Your task to perform on an android device: delete browsing data in the chrome app Image 0: 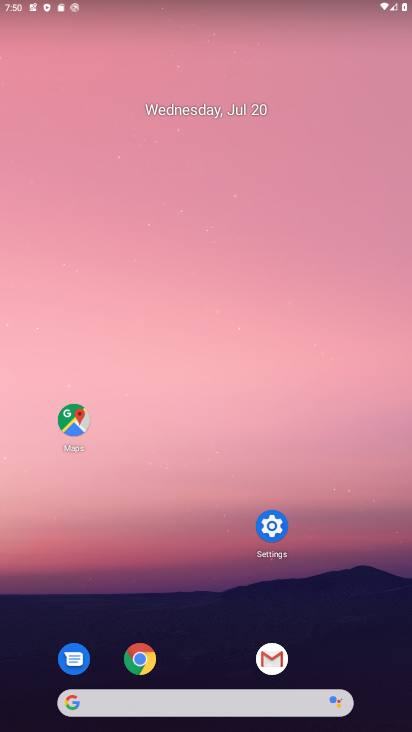
Step 0: click (138, 653)
Your task to perform on an android device: delete browsing data in the chrome app Image 1: 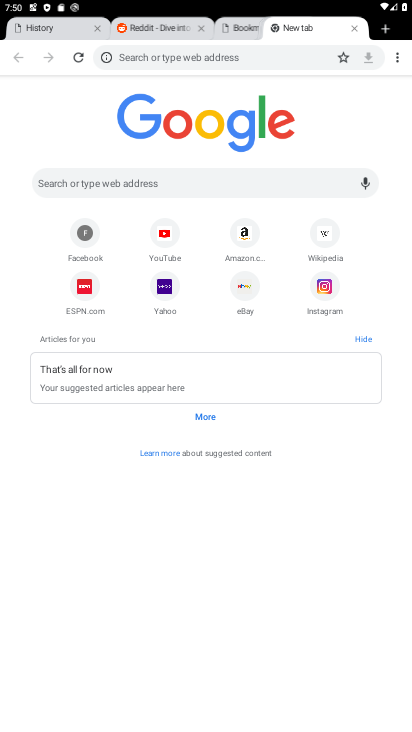
Step 1: click (395, 60)
Your task to perform on an android device: delete browsing data in the chrome app Image 2: 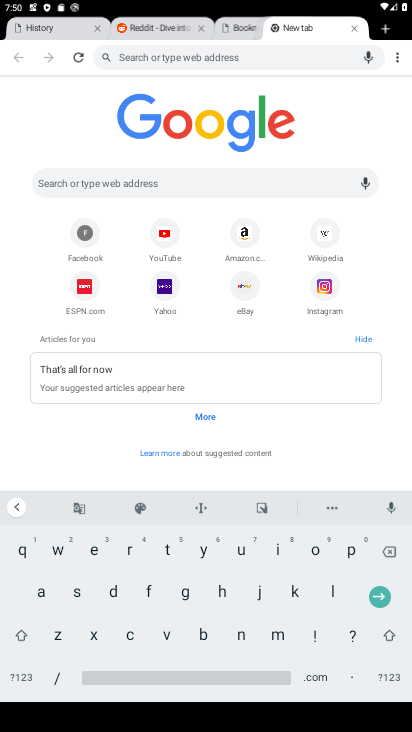
Step 2: click (397, 58)
Your task to perform on an android device: delete browsing data in the chrome app Image 3: 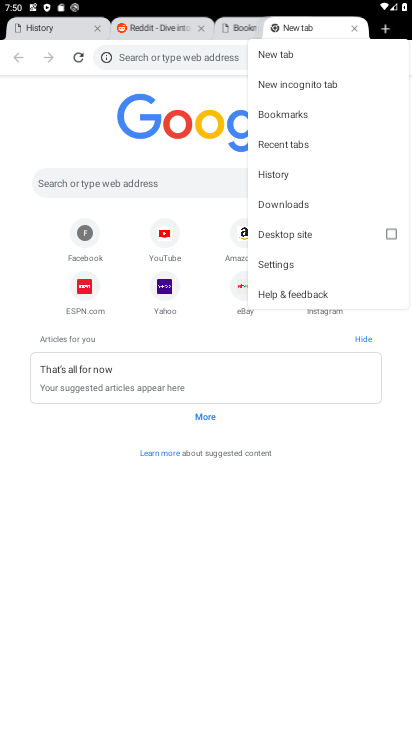
Step 3: click (276, 260)
Your task to perform on an android device: delete browsing data in the chrome app Image 4: 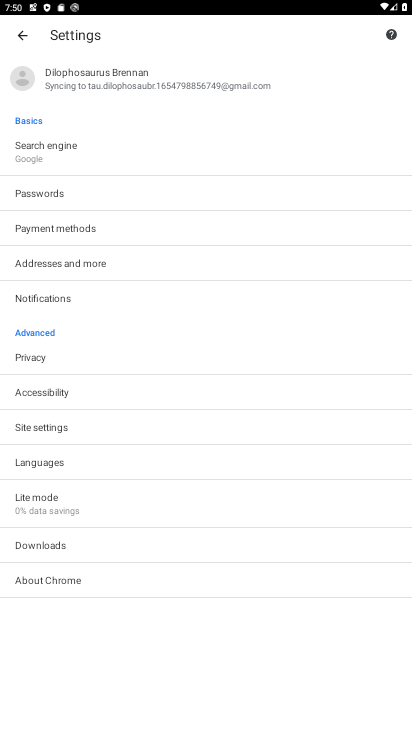
Step 4: click (33, 362)
Your task to perform on an android device: delete browsing data in the chrome app Image 5: 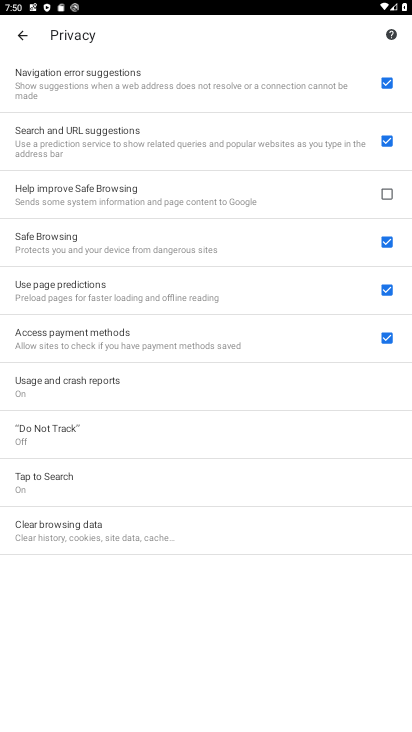
Step 5: click (93, 530)
Your task to perform on an android device: delete browsing data in the chrome app Image 6: 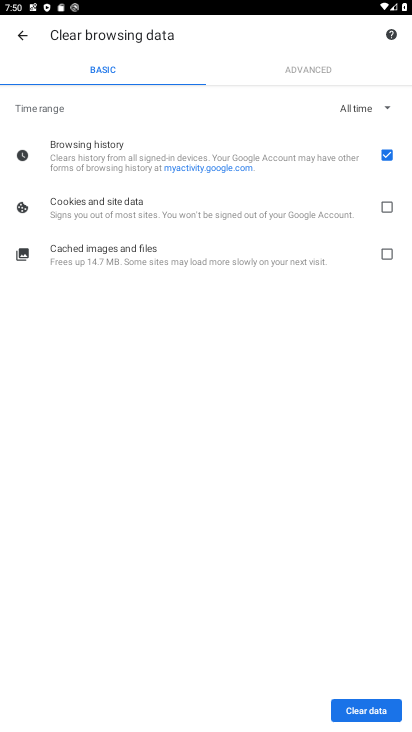
Step 6: click (356, 709)
Your task to perform on an android device: delete browsing data in the chrome app Image 7: 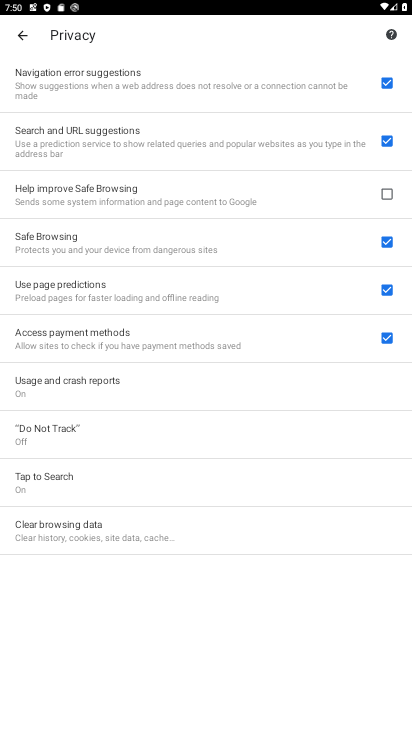
Step 7: task complete